Your task to perform on an android device: check the backup settings in the google photos Image 0: 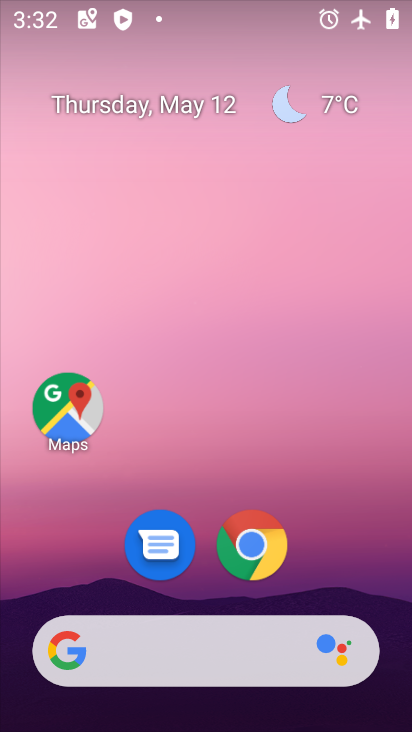
Step 0: drag from (389, 638) to (324, 130)
Your task to perform on an android device: check the backup settings in the google photos Image 1: 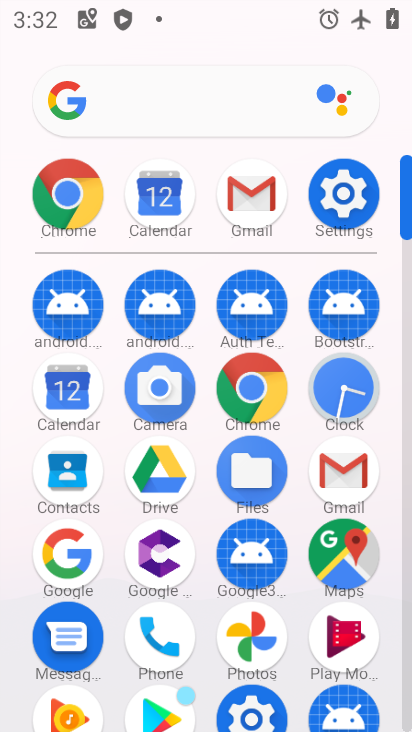
Step 1: click (405, 708)
Your task to perform on an android device: check the backup settings in the google photos Image 2: 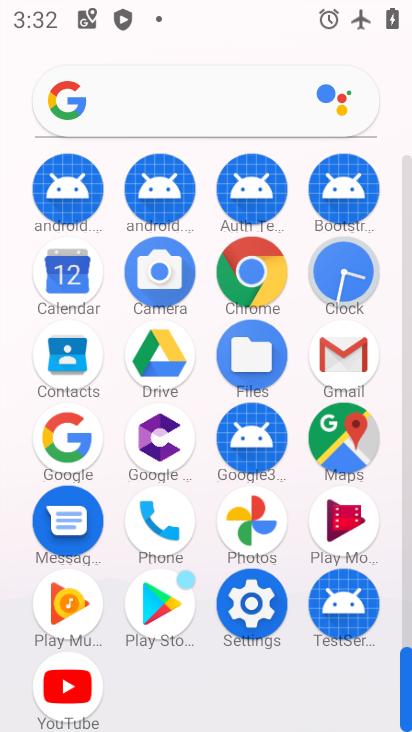
Step 2: click (247, 516)
Your task to perform on an android device: check the backup settings in the google photos Image 3: 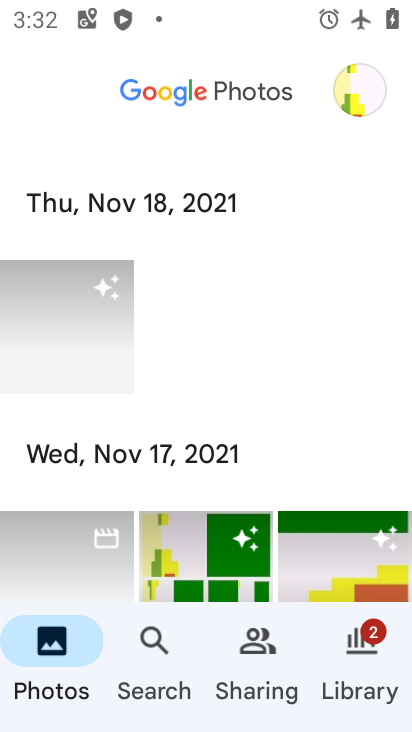
Step 3: click (344, 90)
Your task to perform on an android device: check the backup settings in the google photos Image 4: 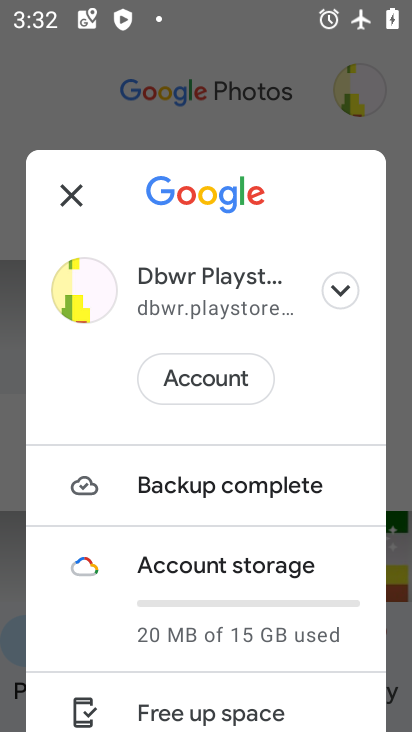
Step 4: drag from (195, 638) to (259, 230)
Your task to perform on an android device: check the backup settings in the google photos Image 5: 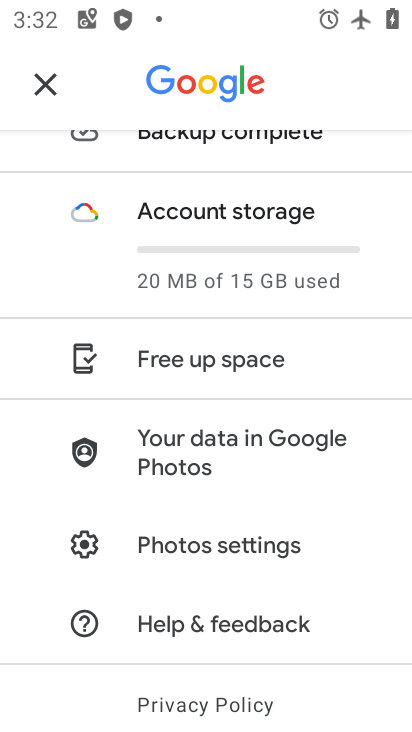
Step 5: click (186, 545)
Your task to perform on an android device: check the backup settings in the google photos Image 6: 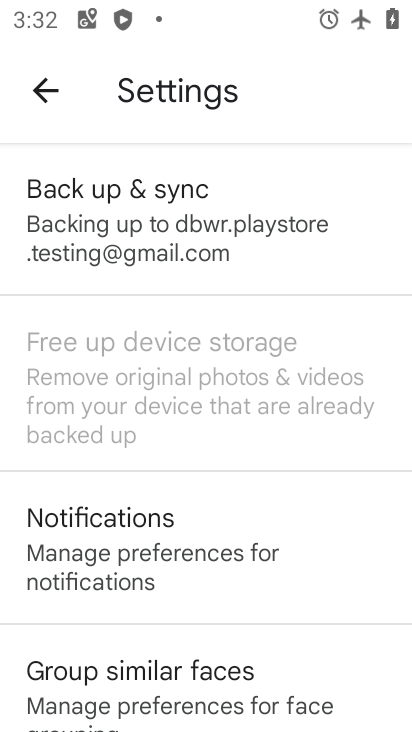
Step 6: click (127, 205)
Your task to perform on an android device: check the backup settings in the google photos Image 7: 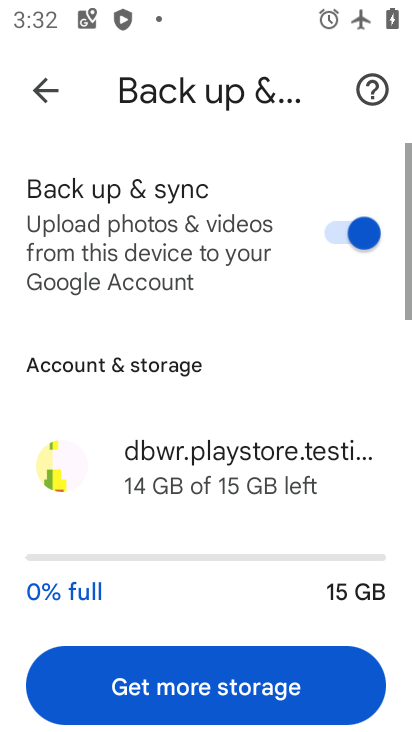
Step 7: task complete